Your task to perform on an android device: open app "Fetch Rewards" Image 0: 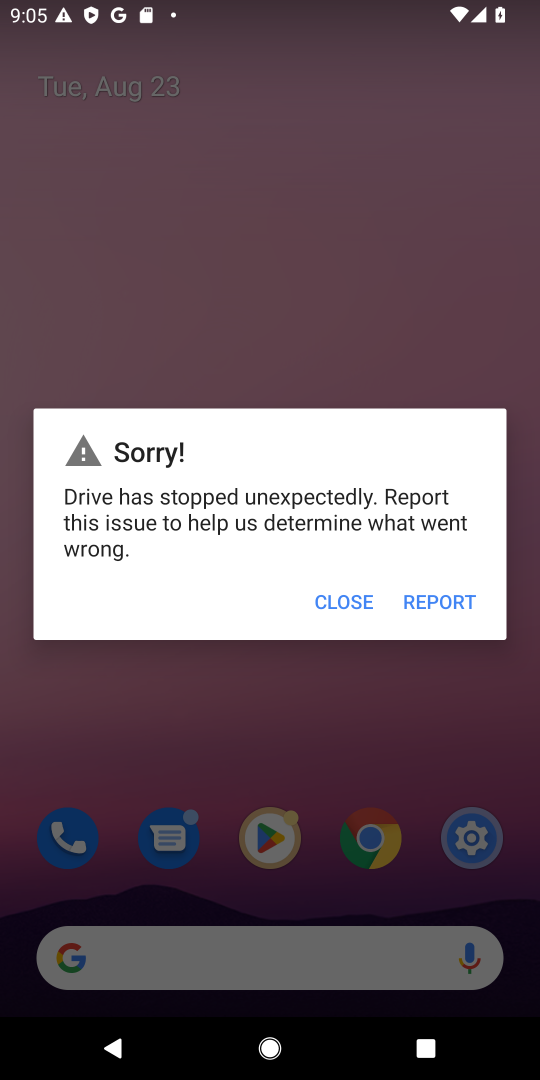
Step 0: click (320, 603)
Your task to perform on an android device: open app "Fetch Rewards" Image 1: 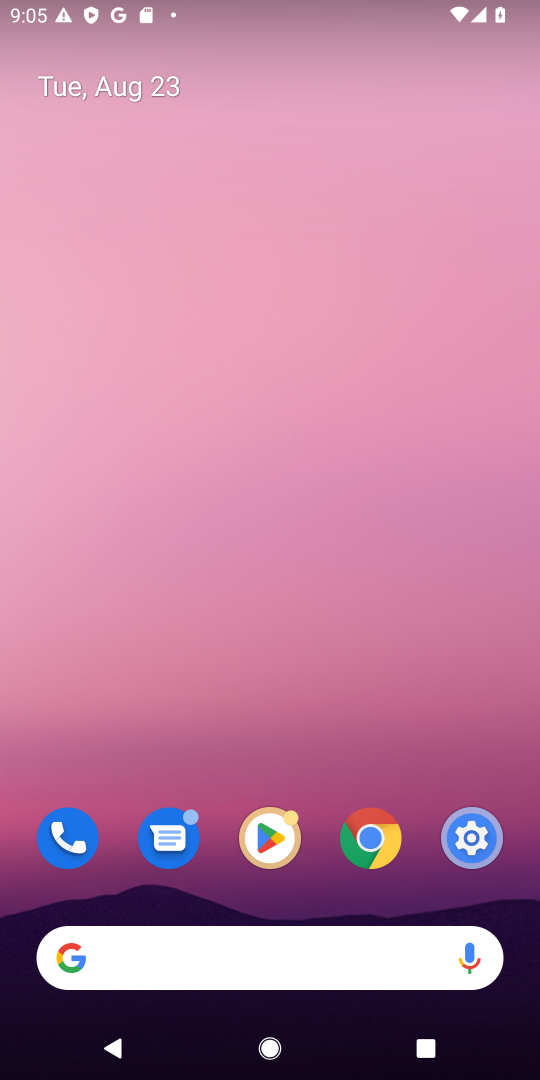
Step 1: click (295, 816)
Your task to perform on an android device: open app "Fetch Rewards" Image 2: 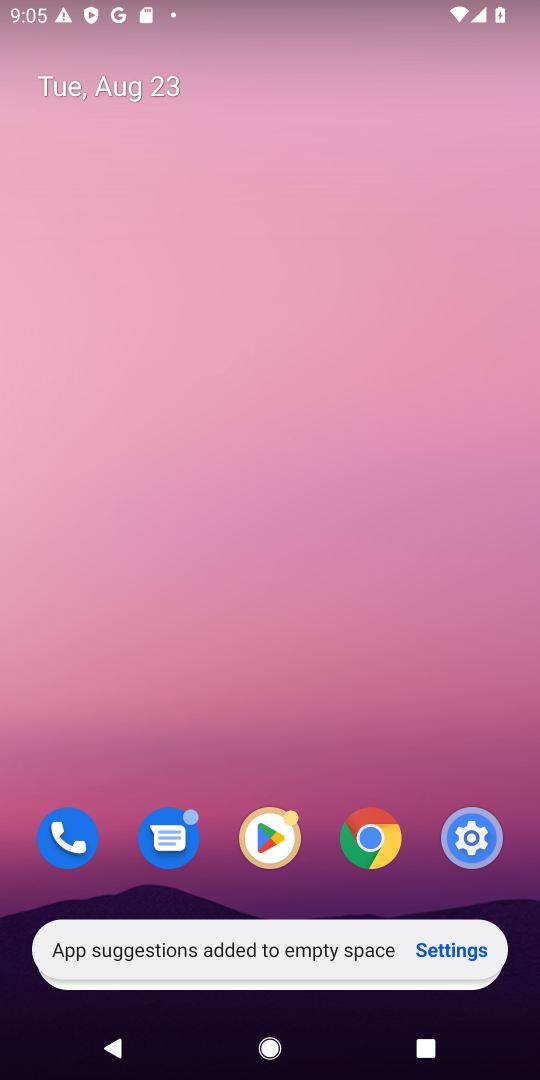
Step 2: click (261, 843)
Your task to perform on an android device: open app "Fetch Rewards" Image 3: 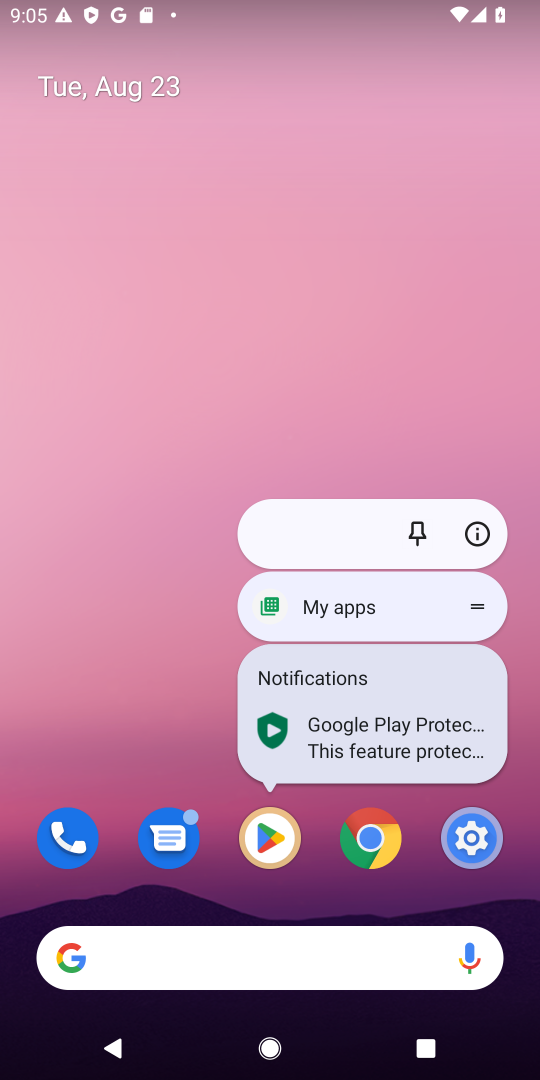
Step 3: click (261, 843)
Your task to perform on an android device: open app "Fetch Rewards" Image 4: 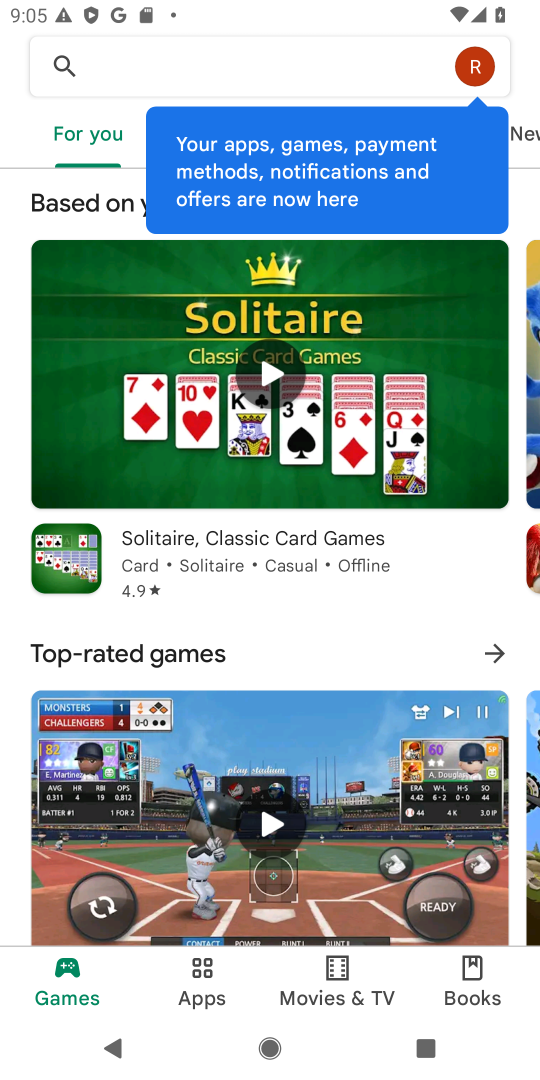
Step 4: click (321, 59)
Your task to perform on an android device: open app "Fetch Rewards" Image 5: 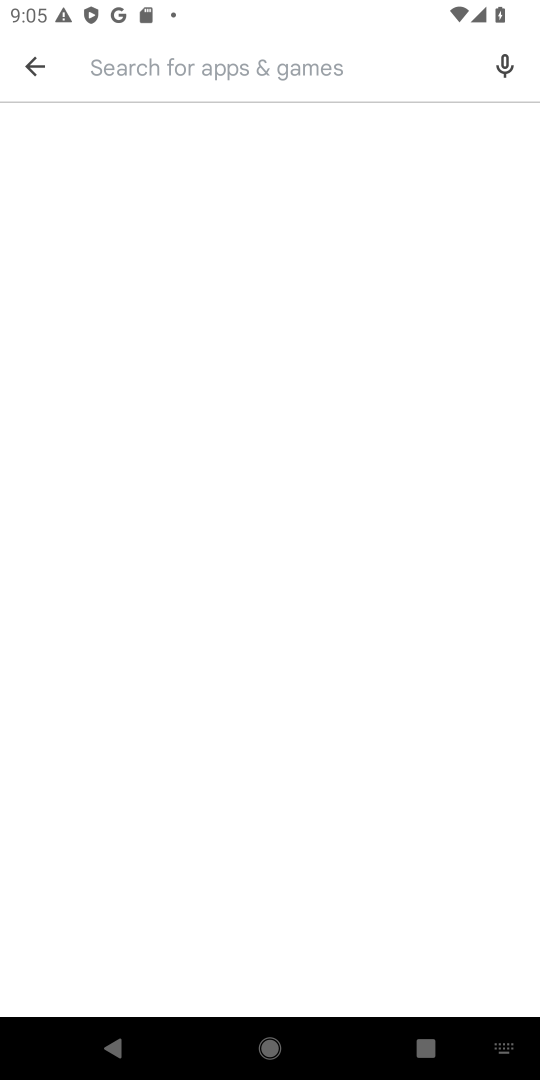
Step 5: type "Fetch Rewards"
Your task to perform on an android device: open app "Fetch Rewards" Image 6: 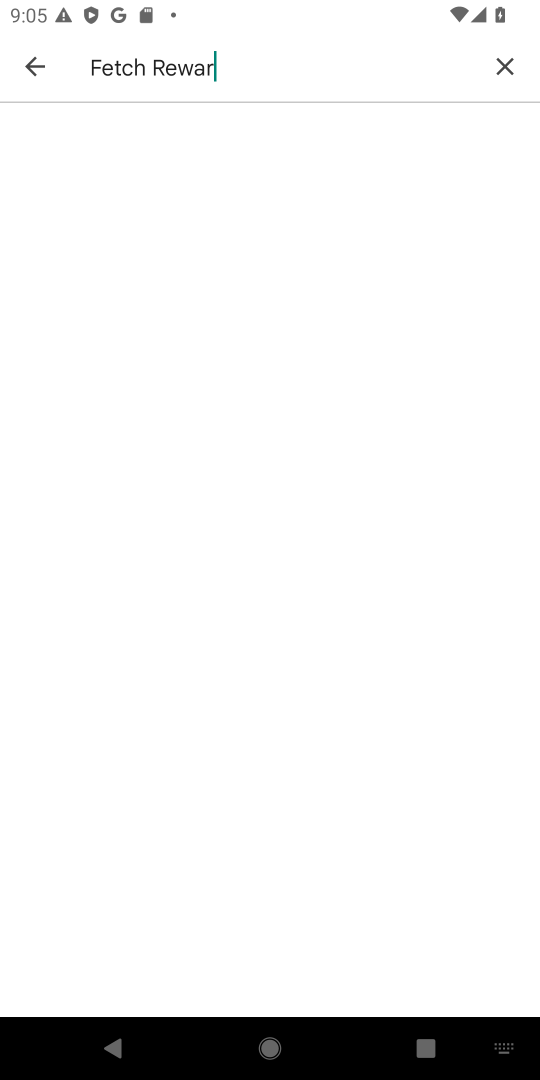
Step 6: type ""
Your task to perform on an android device: open app "Fetch Rewards" Image 7: 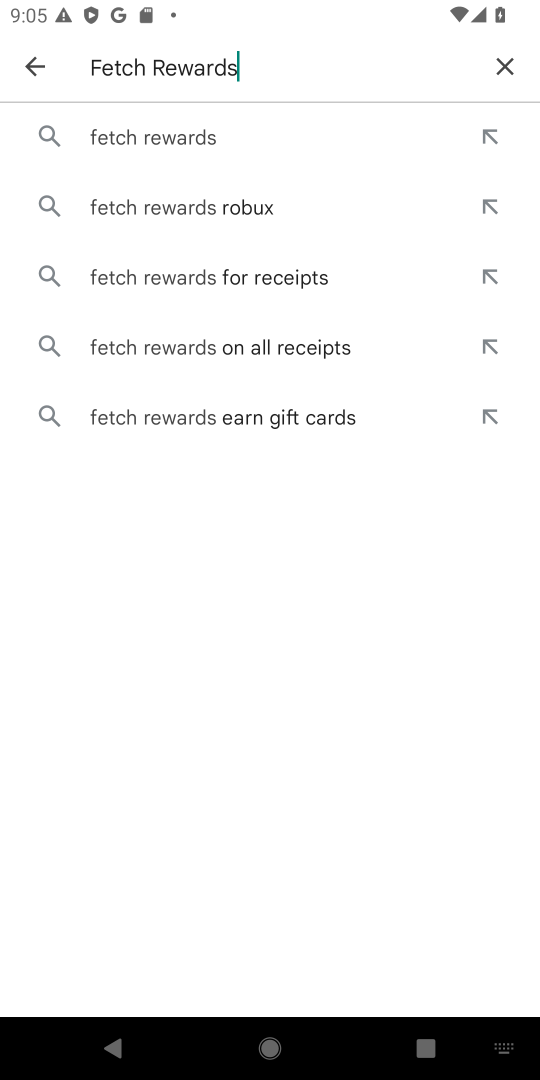
Step 7: click (219, 127)
Your task to perform on an android device: open app "Fetch Rewards" Image 8: 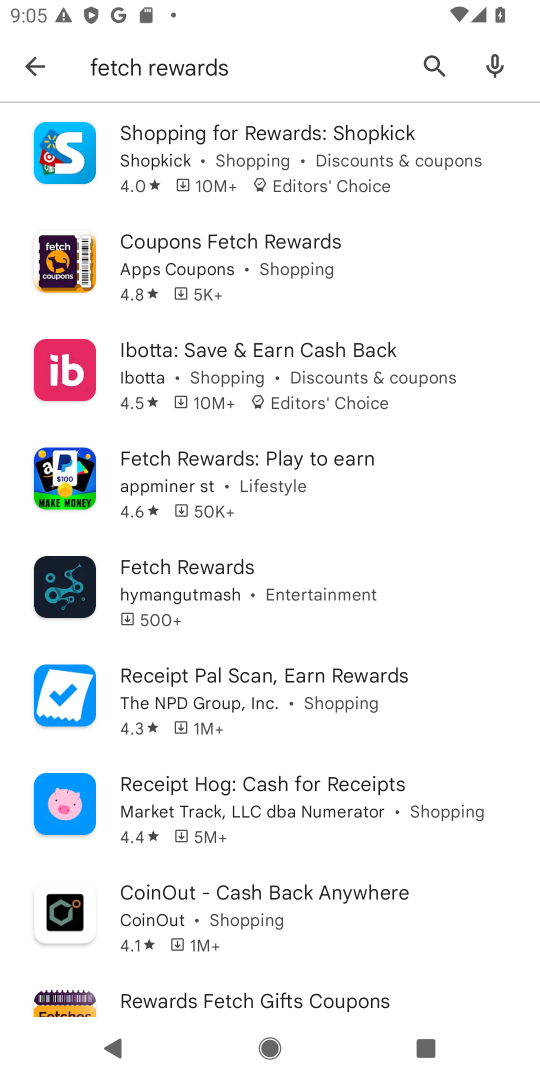
Step 8: task complete